Your task to perform on an android device: turn off wifi Image 0: 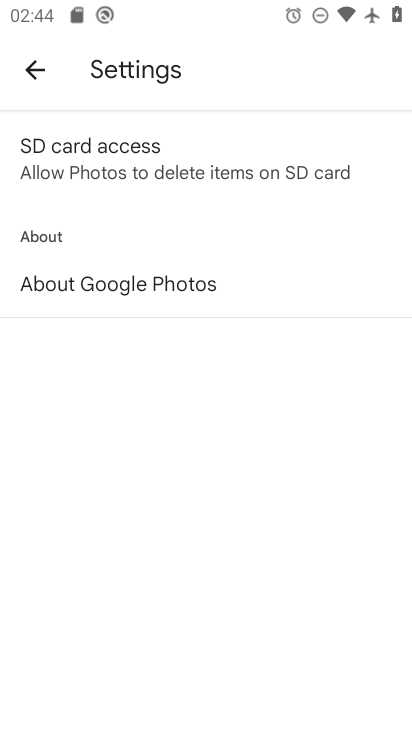
Step 0: press home button
Your task to perform on an android device: turn off wifi Image 1: 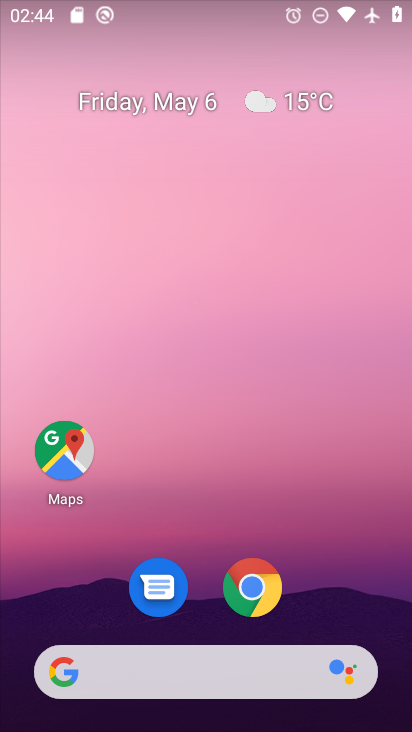
Step 1: drag from (308, 448) to (229, 16)
Your task to perform on an android device: turn off wifi Image 2: 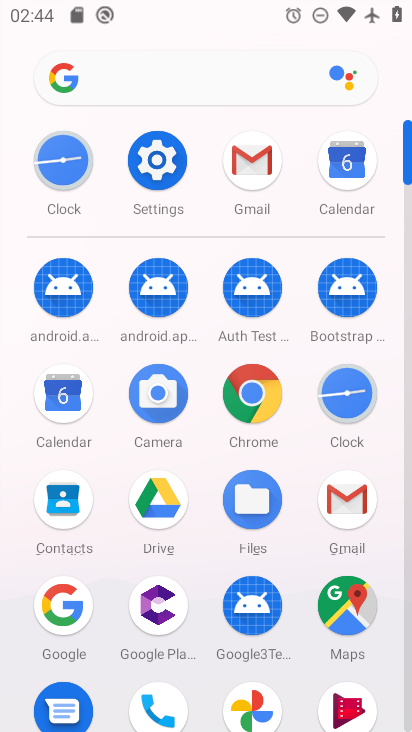
Step 2: click (152, 159)
Your task to perform on an android device: turn off wifi Image 3: 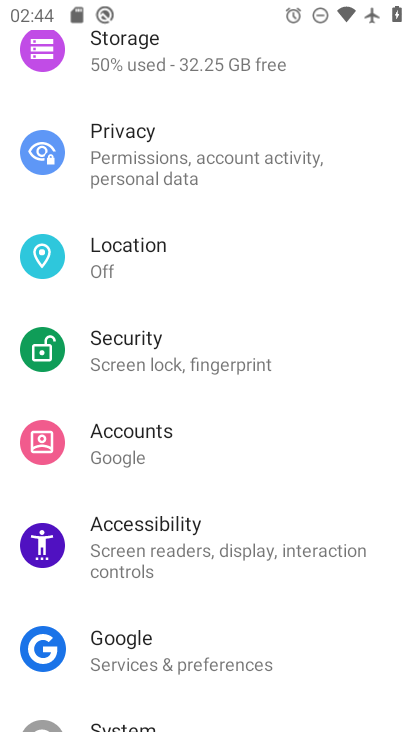
Step 3: drag from (220, 121) to (193, 719)
Your task to perform on an android device: turn off wifi Image 4: 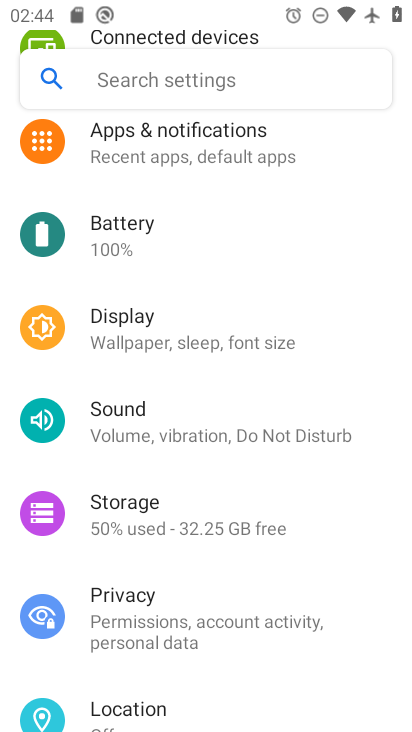
Step 4: drag from (210, 177) to (197, 666)
Your task to perform on an android device: turn off wifi Image 5: 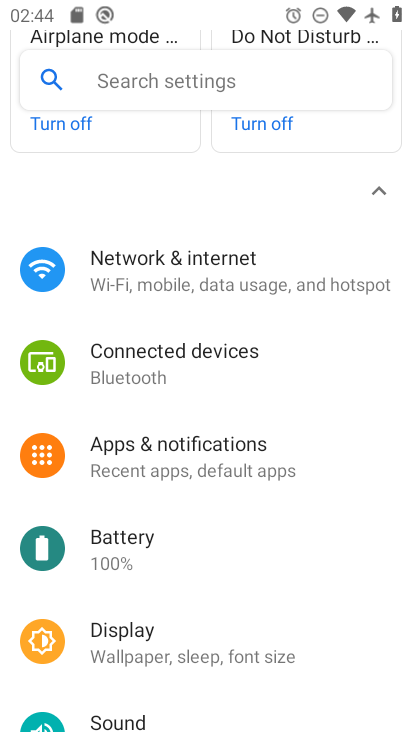
Step 5: click (194, 285)
Your task to perform on an android device: turn off wifi Image 6: 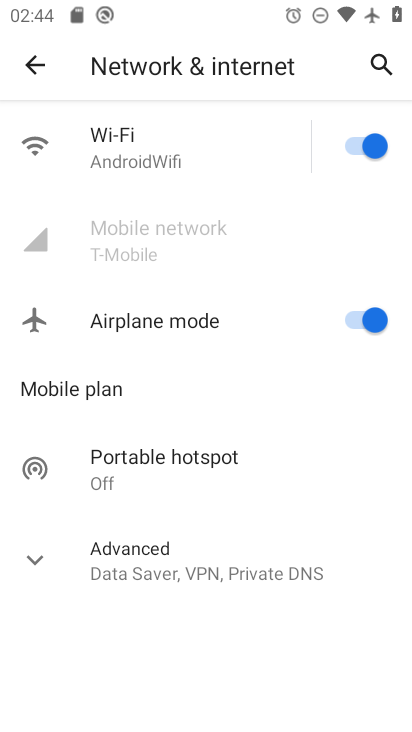
Step 6: click (368, 145)
Your task to perform on an android device: turn off wifi Image 7: 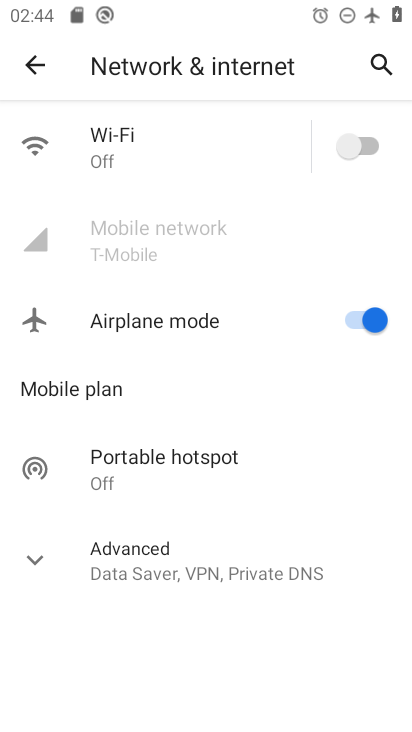
Step 7: task complete